Your task to perform on an android device: Open Google Chrome Image 0: 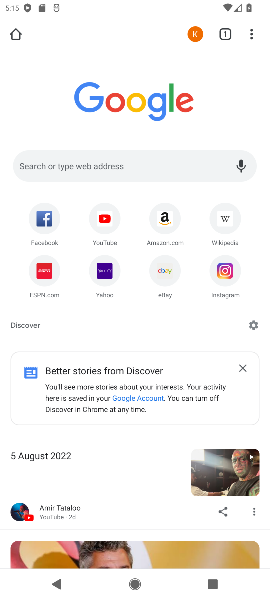
Step 0: press home button
Your task to perform on an android device: Open Google Chrome Image 1: 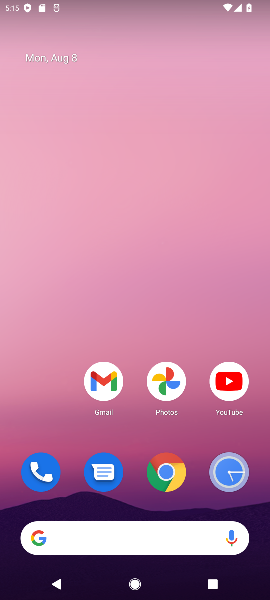
Step 1: click (164, 471)
Your task to perform on an android device: Open Google Chrome Image 2: 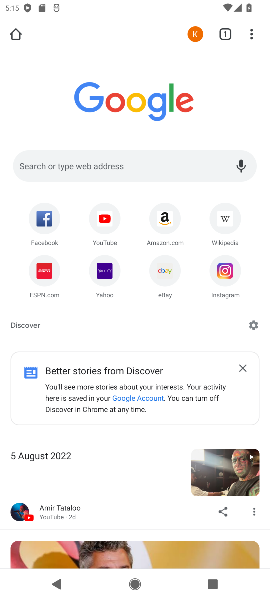
Step 2: task complete